Your task to perform on an android device: change your default location settings in chrome Image 0: 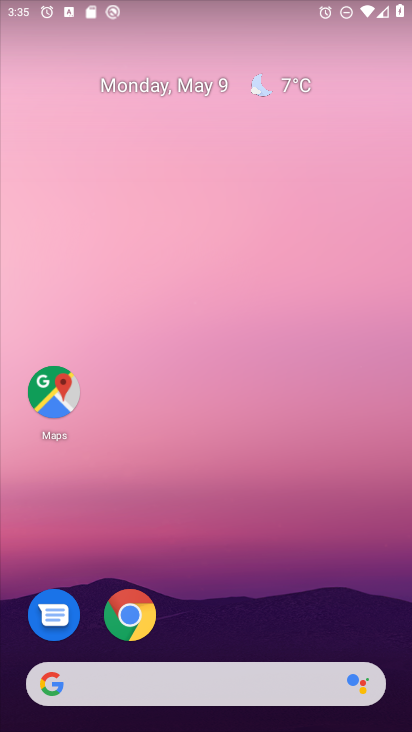
Step 0: click (130, 613)
Your task to perform on an android device: change your default location settings in chrome Image 1: 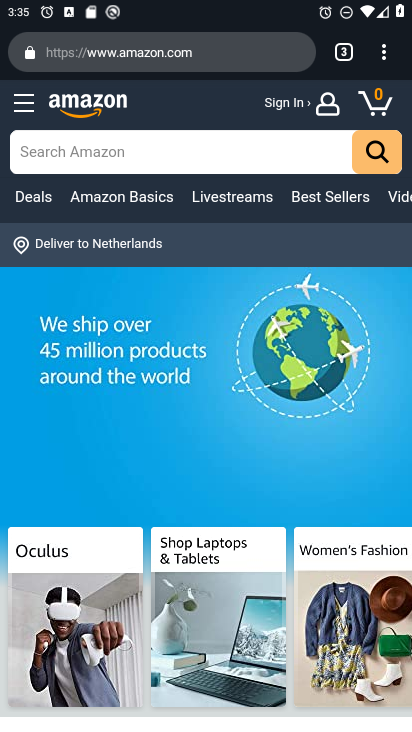
Step 1: click (384, 56)
Your task to perform on an android device: change your default location settings in chrome Image 2: 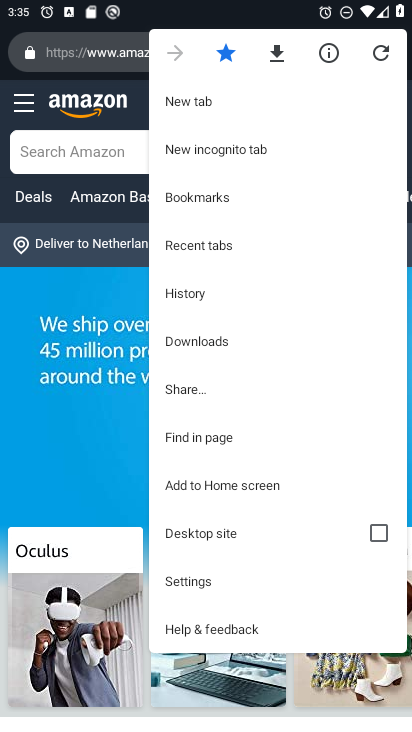
Step 2: click (192, 573)
Your task to perform on an android device: change your default location settings in chrome Image 3: 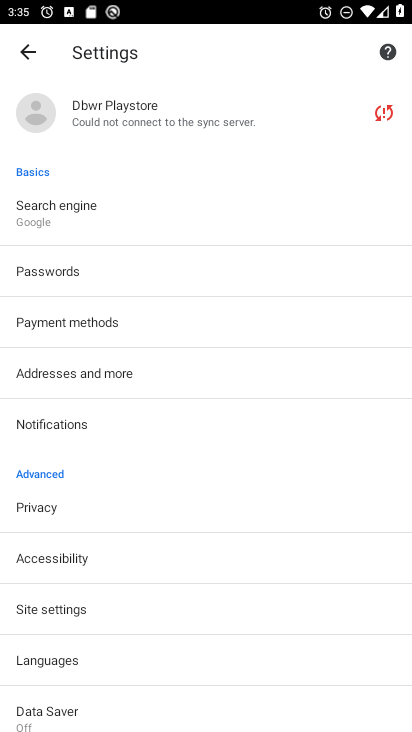
Step 3: click (46, 608)
Your task to perform on an android device: change your default location settings in chrome Image 4: 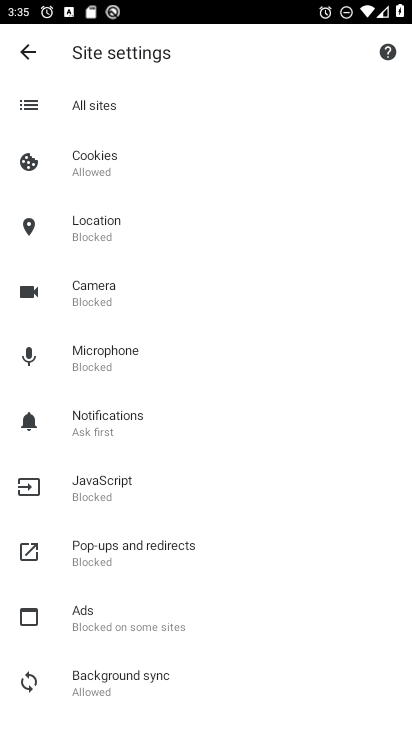
Step 4: click (90, 221)
Your task to perform on an android device: change your default location settings in chrome Image 5: 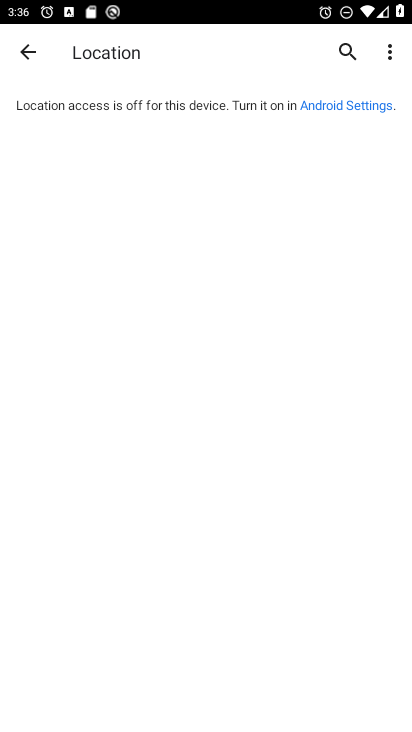
Step 5: task complete